Your task to perform on an android device: Open calendar and show me the first week of next month Image 0: 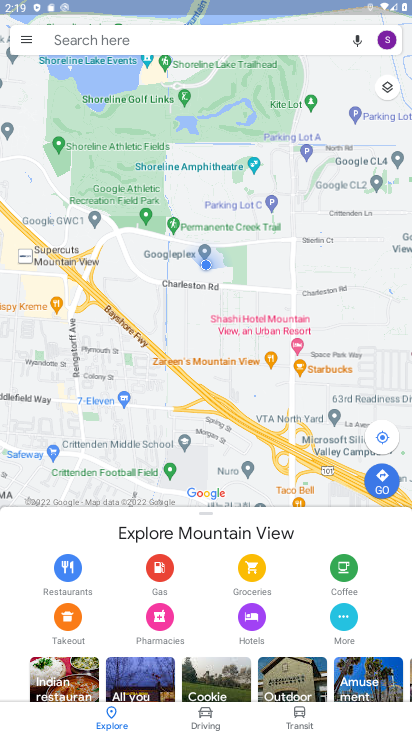
Step 0: task complete